Your task to perform on an android device: delete the emails in spam in the gmail app Image 0: 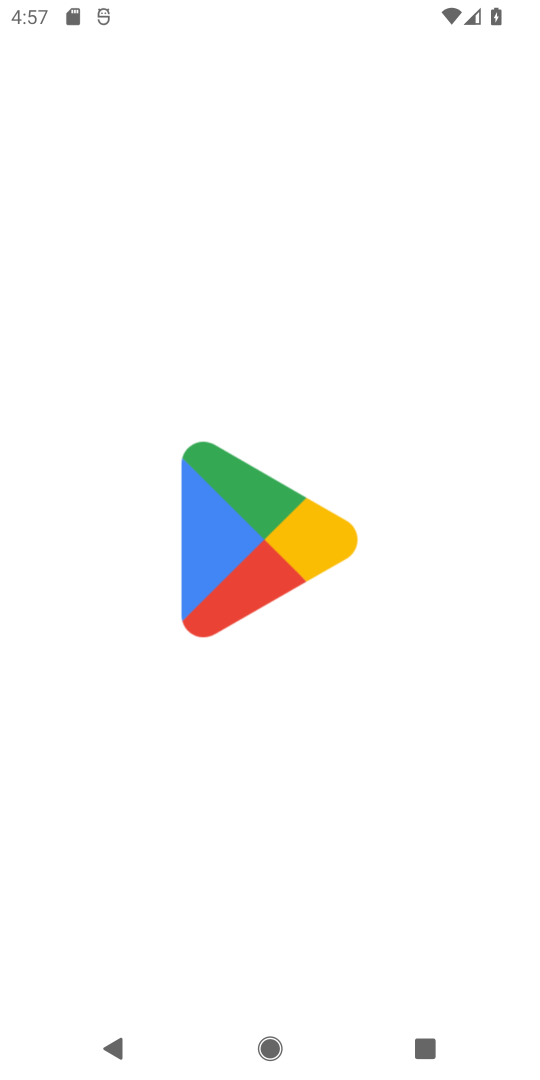
Step 0: press home button
Your task to perform on an android device: delete the emails in spam in the gmail app Image 1: 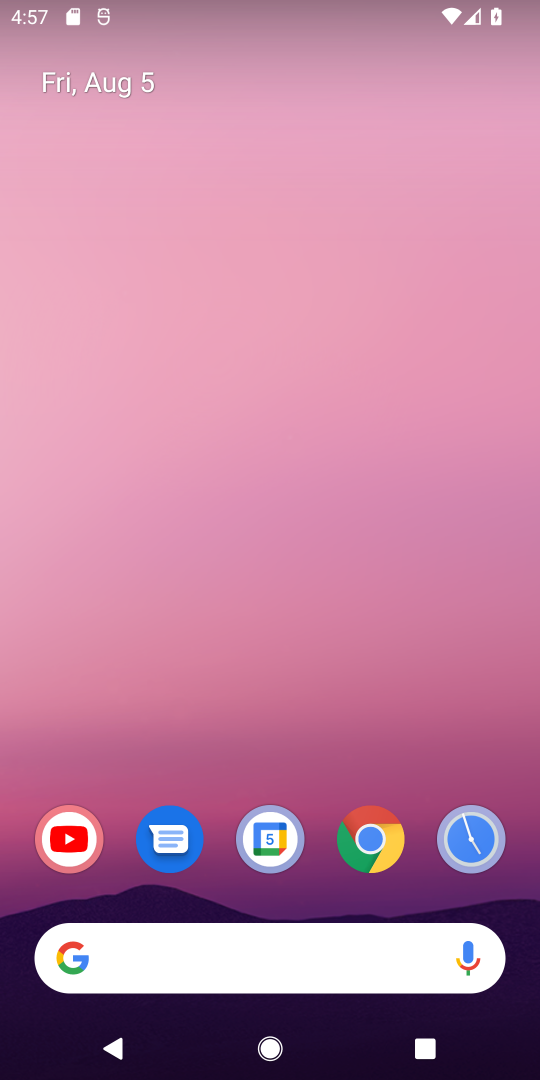
Step 1: drag from (257, 721) to (251, 207)
Your task to perform on an android device: delete the emails in spam in the gmail app Image 2: 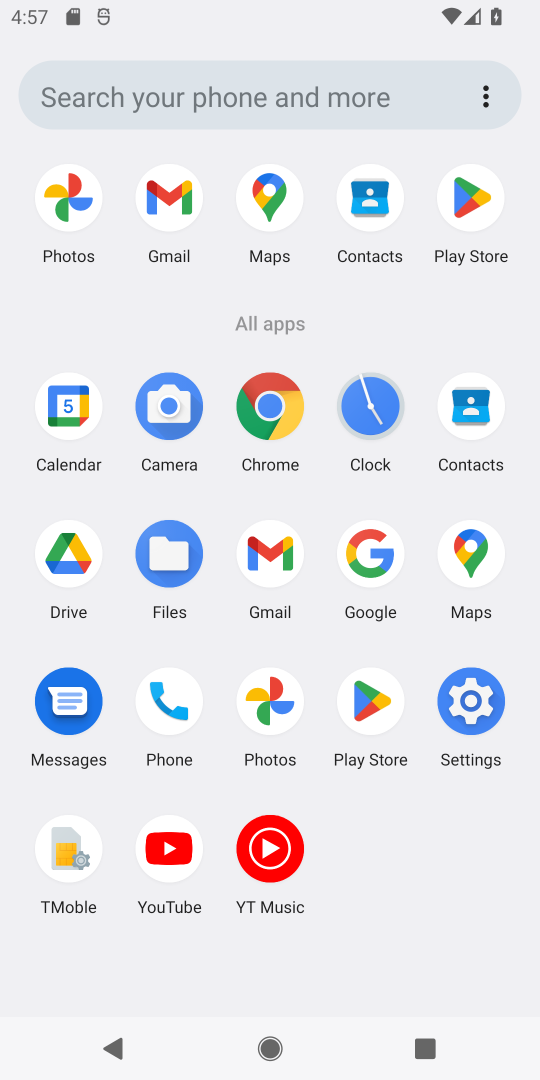
Step 2: click (175, 225)
Your task to perform on an android device: delete the emails in spam in the gmail app Image 3: 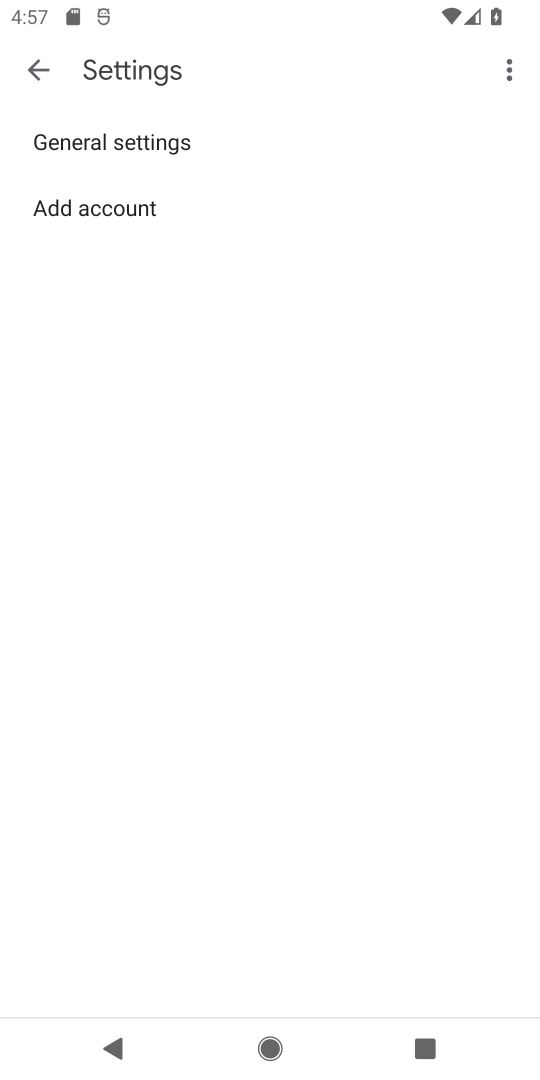
Step 3: click (31, 75)
Your task to perform on an android device: delete the emails in spam in the gmail app Image 4: 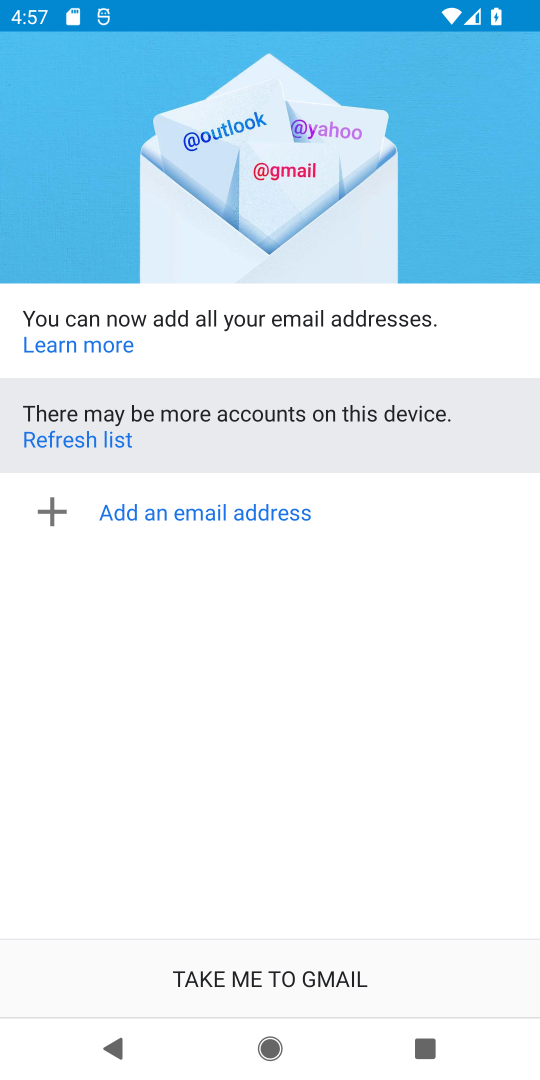
Step 4: click (297, 957)
Your task to perform on an android device: delete the emails in spam in the gmail app Image 5: 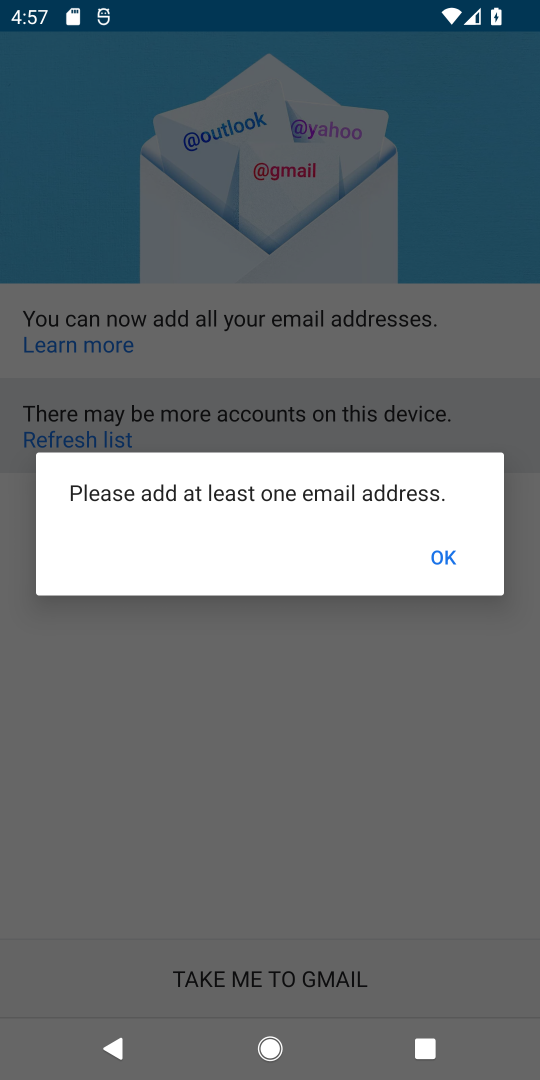
Step 5: task complete